Your task to perform on an android device: Open display settings Image 0: 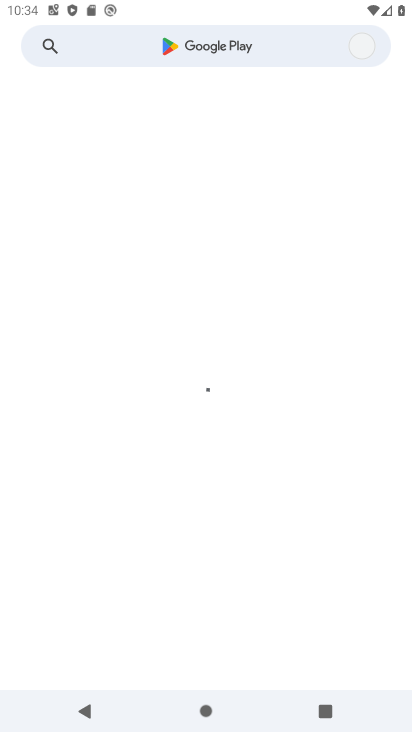
Step 0: press home button
Your task to perform on an android device: Open display settings Image 1: 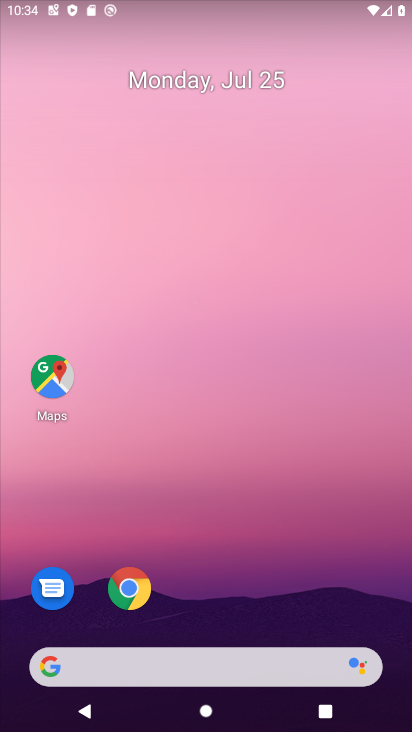
Step 1: drag from (304, 544) to (302, 82)
Your task to perform on an android device: Open display settings Image 2: 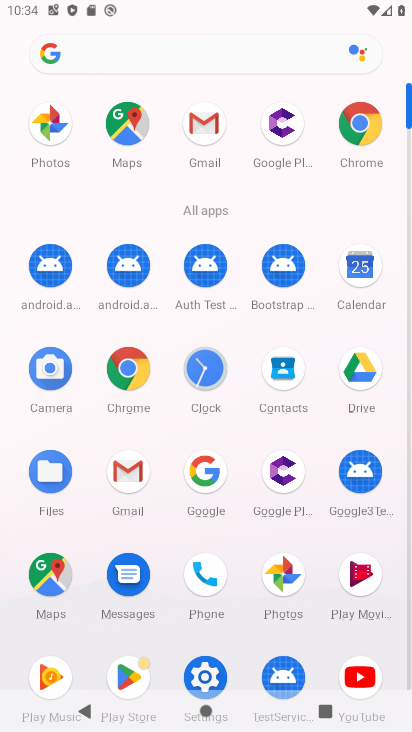
Step 2: click (212, 673)
Your task to perform on an android device: Open display settings Image 3: 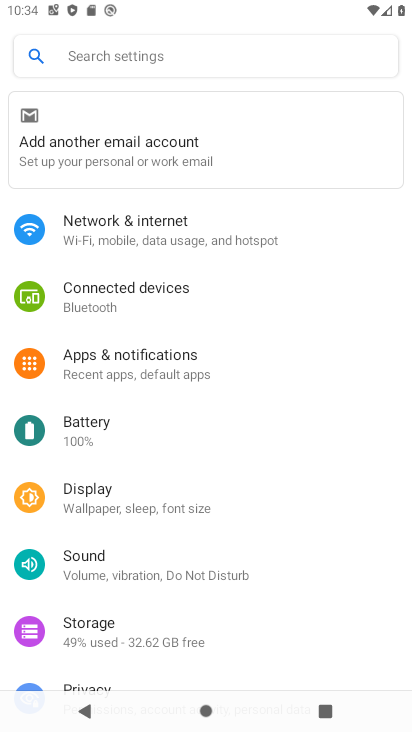
Step 3: click (101, 492)
Your task to perform on an android device: Open display settings Image 4: 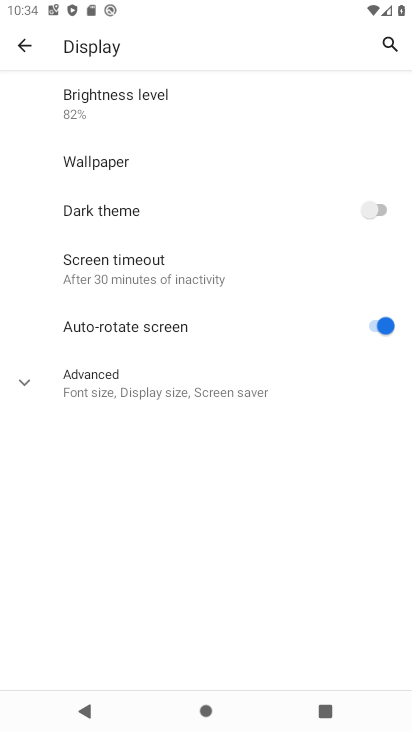
Step 4: task complete